Your task to perform on an android device: Open eBay Image 0: 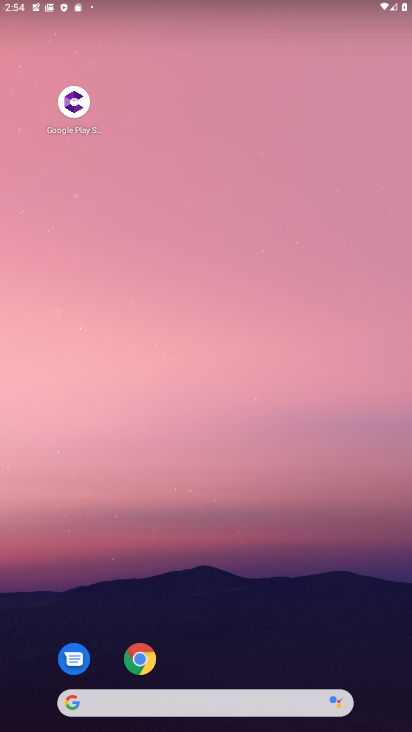
Step 0: drag from (213, 533) to (213, 265)
Your task to perform on an android device: Open eBay Image 1: 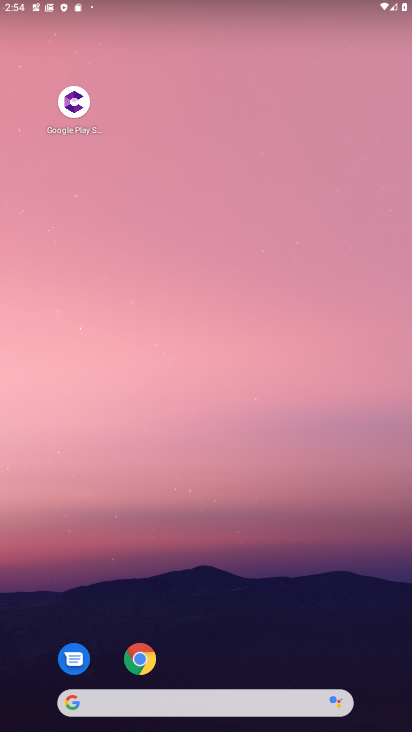
Step 1: drag from (225, 680) to (272, 175)
Your task to perform on an android device: Open eBay Image 2: 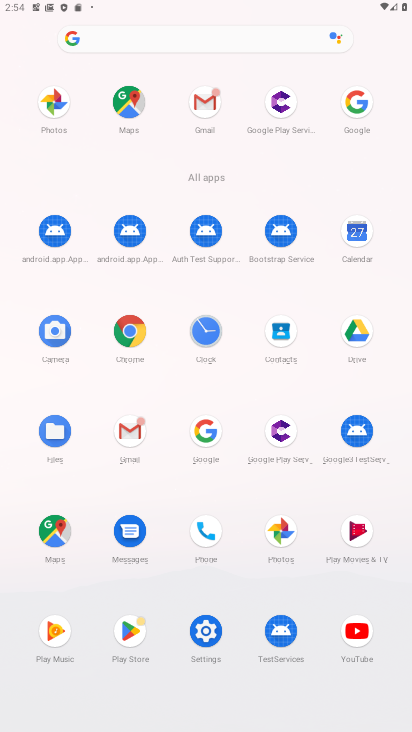
Step 2: click (213, 428)
Your task to perform on an android device: Open eBay Image 3: 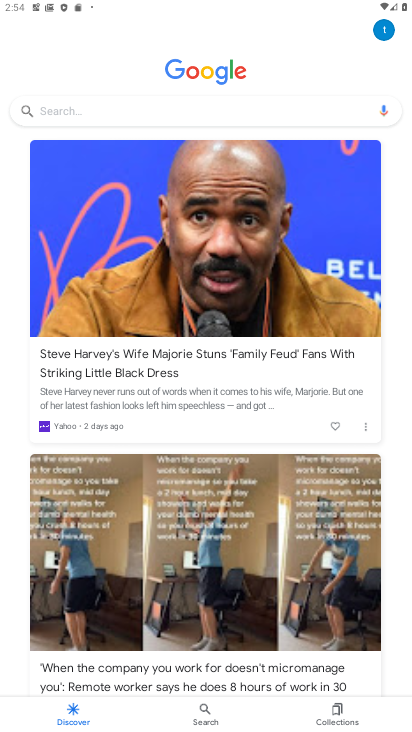
Step 3: click (151, 116)
Your task to perform on an android device: Open eBay Image 4: 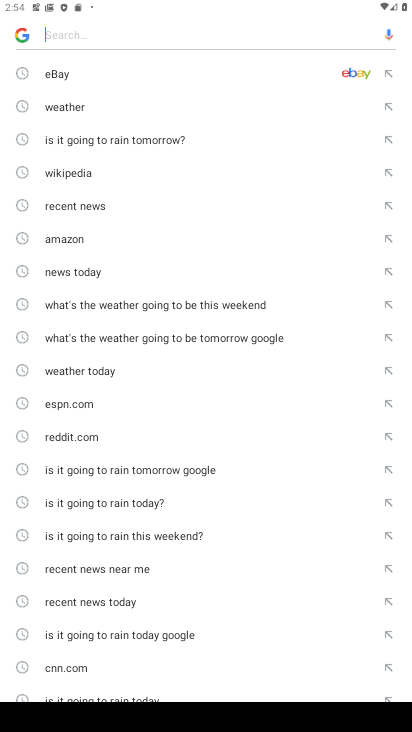
Step 4: click (65, 74)
Your task to perform on an android device: Open eBay Image 5: 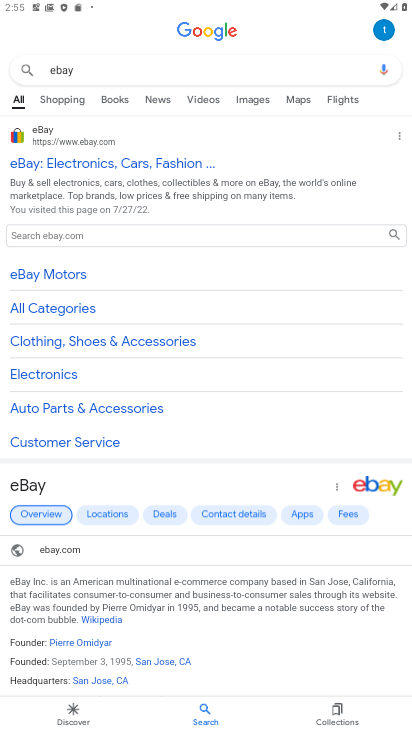
Step 5: click (75, 157)
Your task to perform on an android device: Open eBay Image 6: 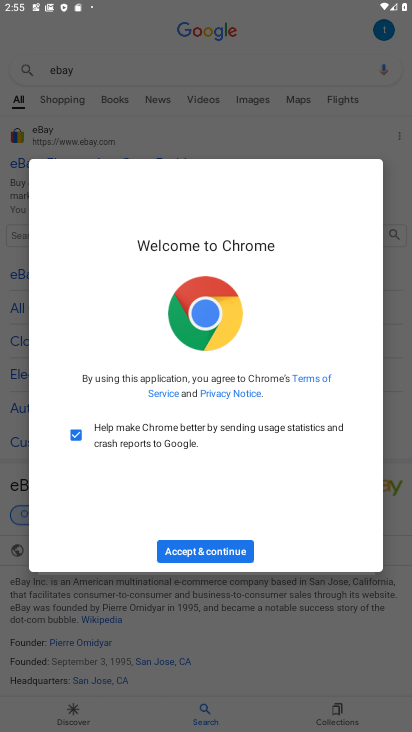
Step 6: click (215, 554)
Your task to perform on an android device: Open eBay Image 7: 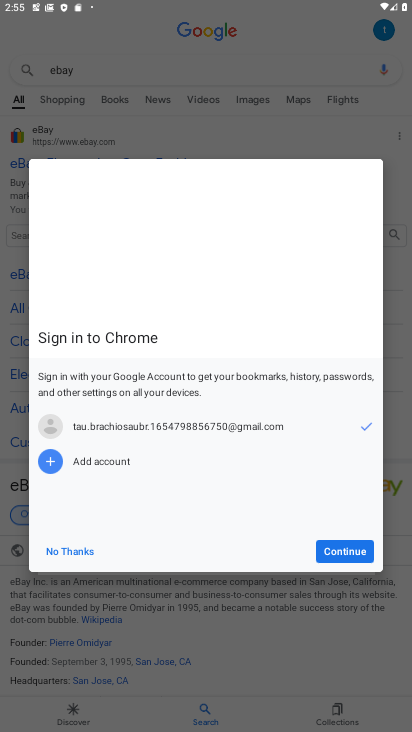
Step 7: click (344, 552)
Your task to perform on an android device: Open eBay Image 8: 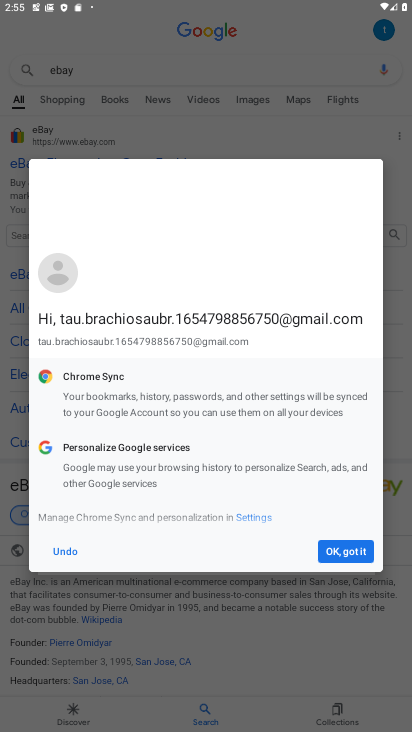
Step 8: click (344, 552)
Your task to perform on an android device: Open eBay Image 9: 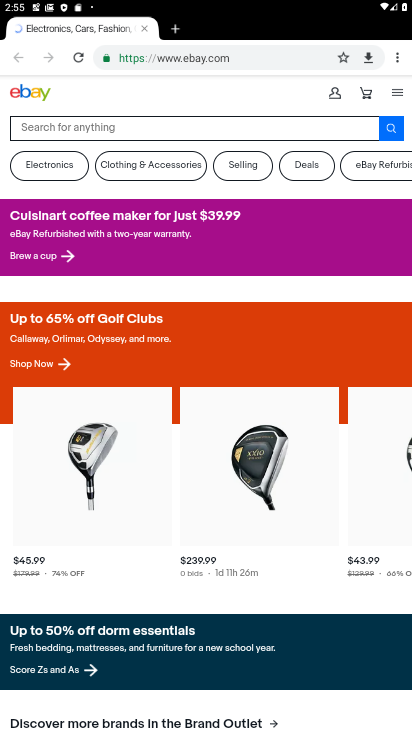
Step 9: task complete